Your task to perform on an android device: Toggle the flashlight Image 0: 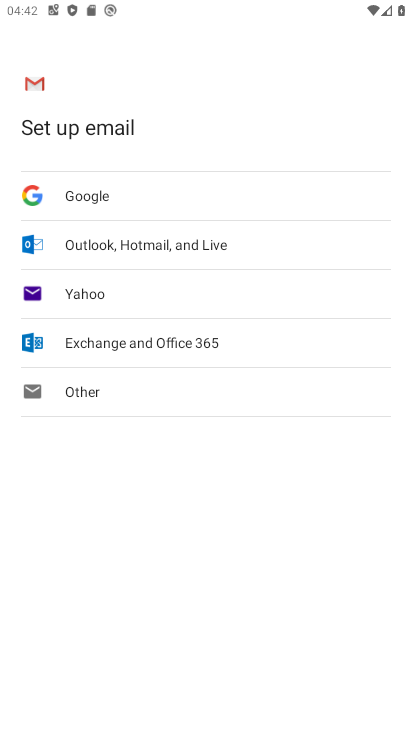
Step 0: drag from (239, 8) to (204, 382)
Your task to perform on an android device: Toggle the flashlight Image 1: 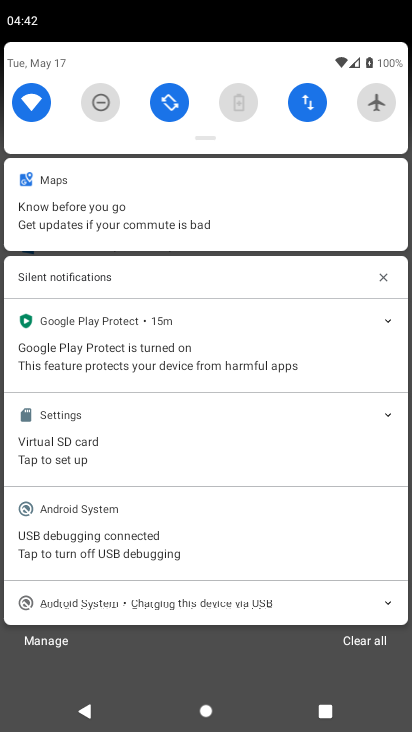
Step 1: task complete